Your task to perform on an android device: Open sound settings Image 0: 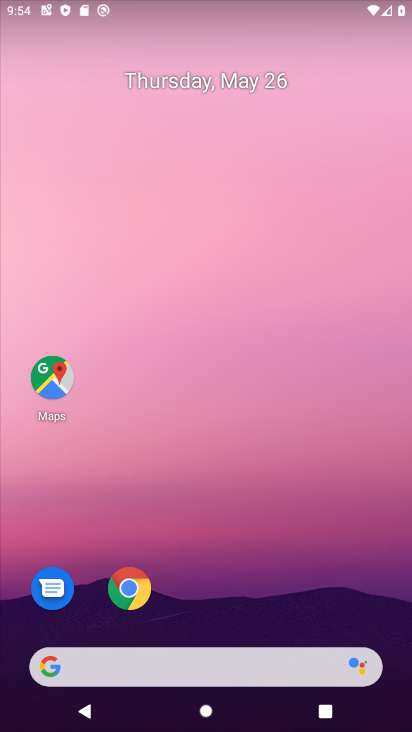
Step 0: drag from (214, 727) to (212, 0)
Your task to perform on an android device: Open sound settings Image 1: 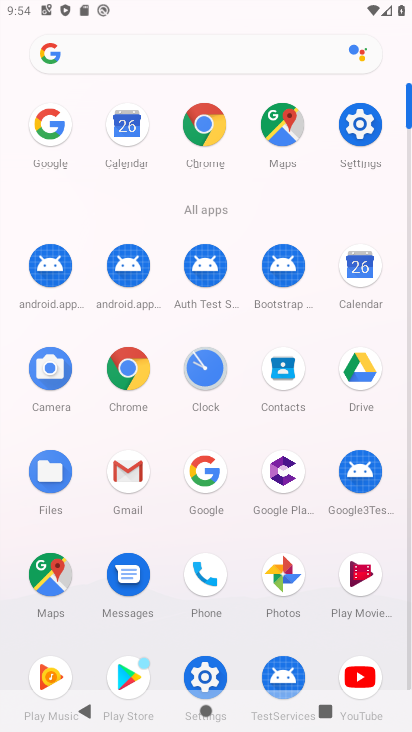
Step 1: click (342, 160)
Your task to perform on an android device: Open sound settings Image 2: 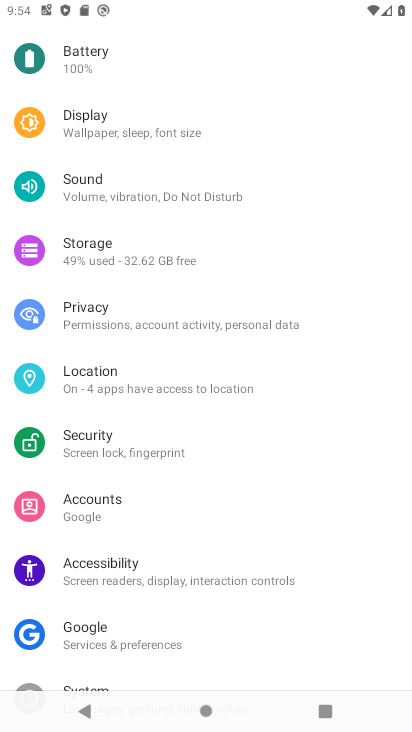
Step 2: click (83, 190)
Your task to perform on an android device: Open sound settings Image 3: 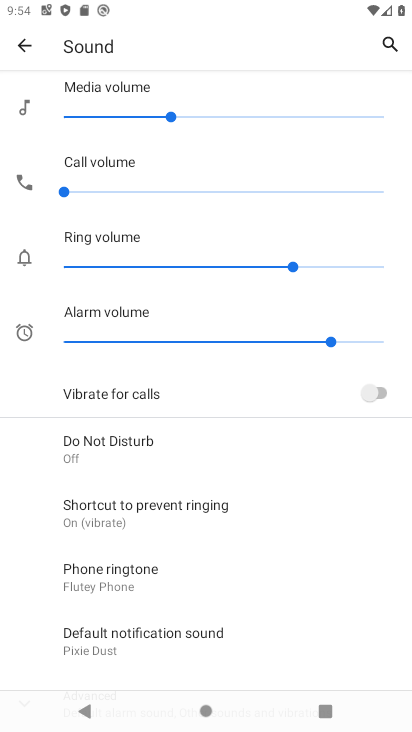
Step 3: task complete